Your task to perform on an android device: Go to notification settings Image 0: 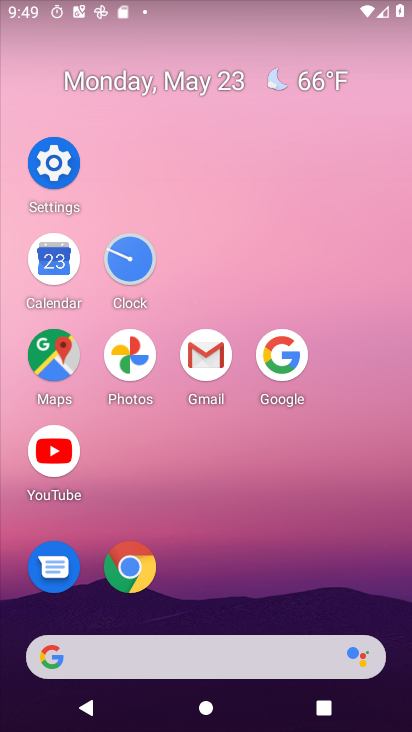
Step 0: click (53, 157)
Your task to perform on an android device: Go to notification settings Image 1: 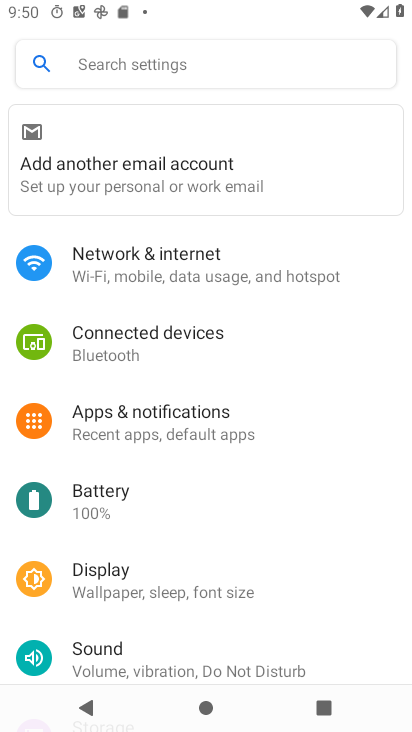
Step 1: click (173, 409)
Your task to perform on an android device: Go to notification settings Image 2: 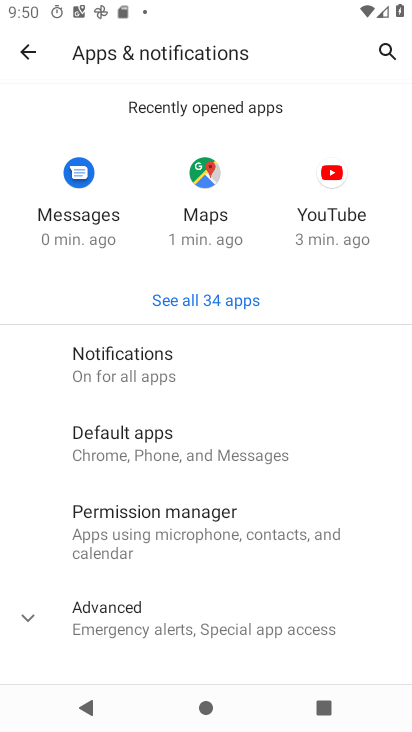
Step 2: task complete